Your task to perform on an android device: turn off data saver in the chrome app Image 0: 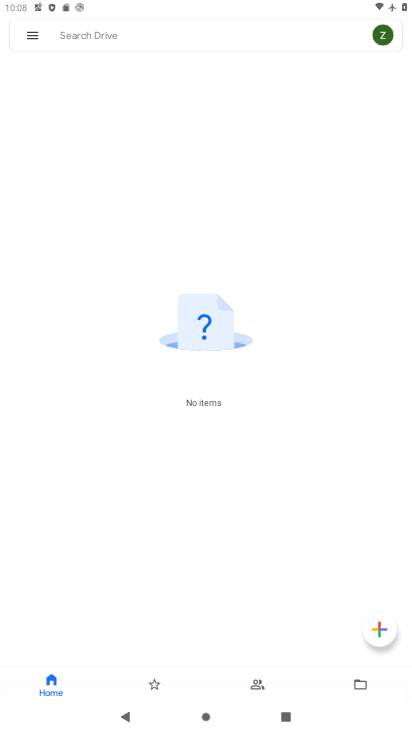
Step 0: press home button
Your task to perform on an android device: turn off data saver in the chrome app Image 1: 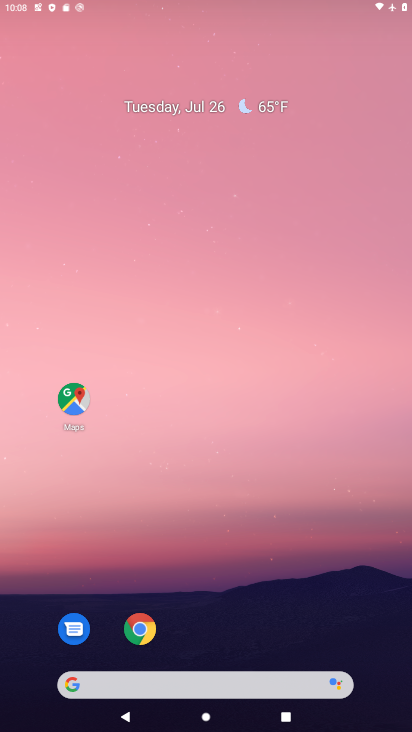
Step 1: drag from (323, 613) to (194, 183)
Your task to perform on an android device: turn off data saver in the chrome app Image 2: 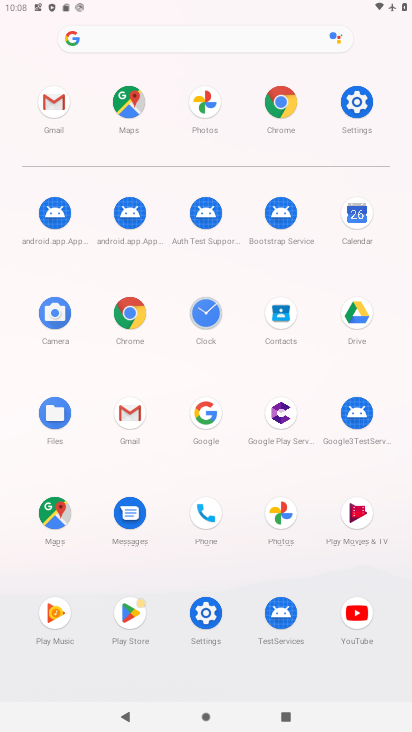
Step 2: click (277, 89)
Your task to perform on an android device: turn off data saver in the chrome app Image 3: 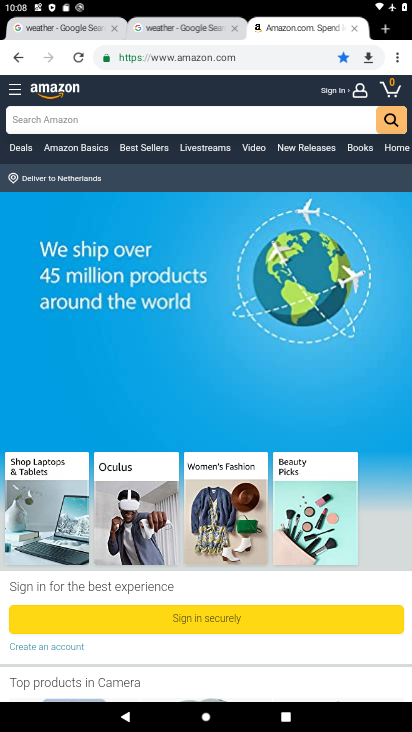
Step 3: drag from (391, 46) to (282, 382)
Your task to perform on an android device: turn off data saver in the chrome app Image 4: 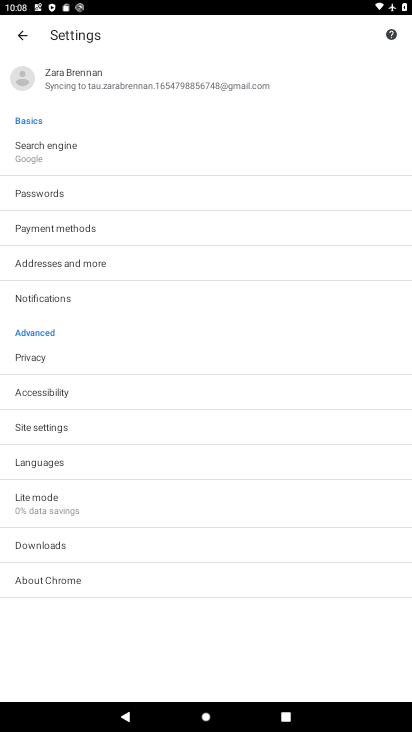
Step 4: click (58, 514)
Your task to perform on an android device: turn off data saver in the chrome app Image 5: 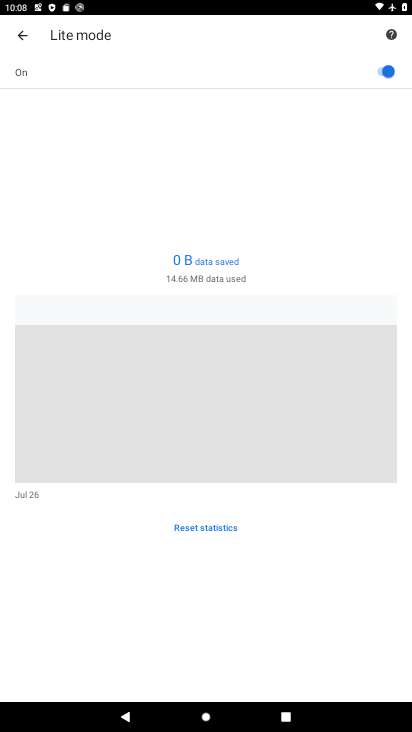
Step 5: click (386, 74)
Your task to perform on an android device: turn off data saver in the chrome app Image 6: 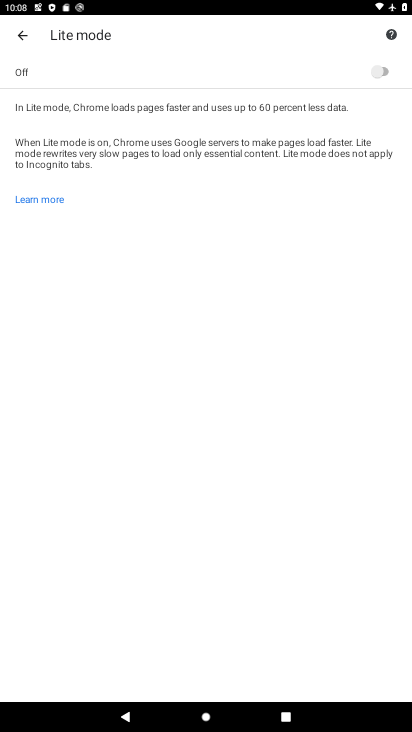
Step 6: task complete